Your task to perform on an android device: Open the calendar and show me this week's events Image 0: 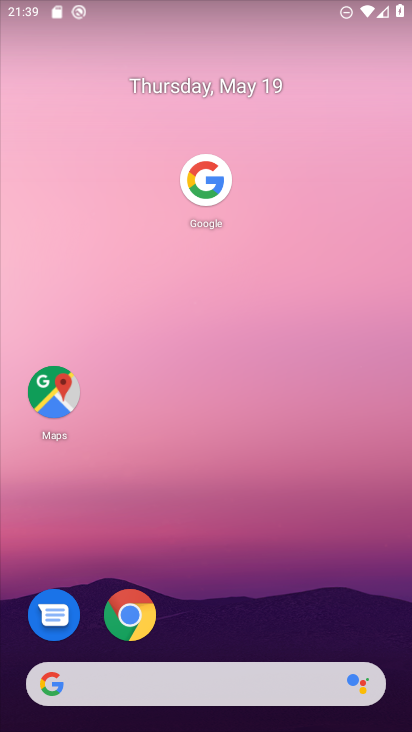
Step 0: drag from (246, 630) to (235, 137)
Your task to perform on an android device: Open the calendar and show me this week's events Image 1: 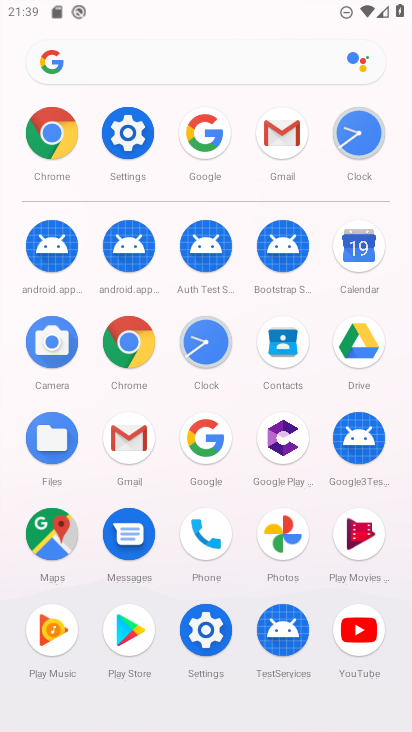
Step 1: click (352, 255)
Your task to perform on an android device: Open the calendar and show me this week's events Image 2: 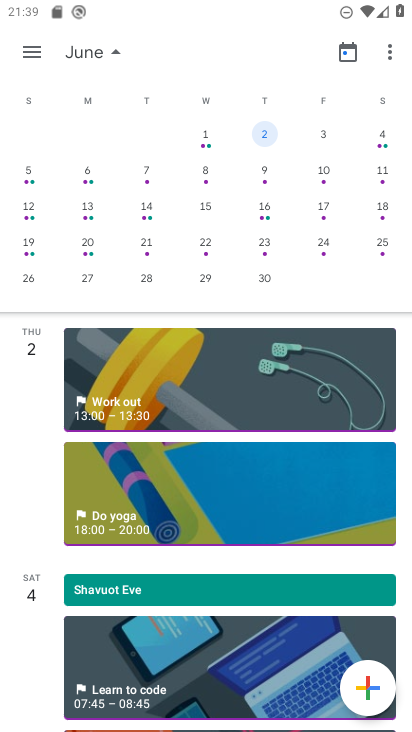
Step 2: drag from (63, 249) to (406, 242)
Your task to perform on an android device: Open the calendar and show me this week's events Image 3: 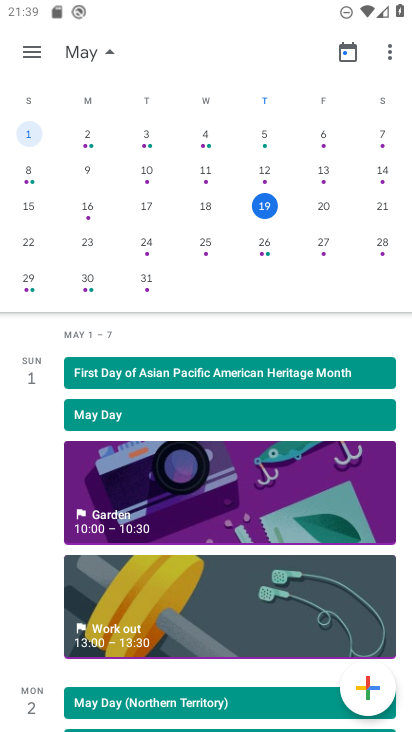
Step 3: click (37, 240)
Your task to perform on an android device: Open the calendar and show me this week's events Image 4: 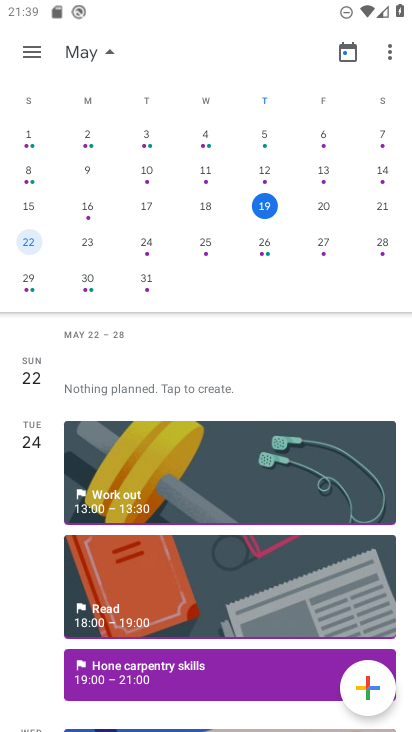
Step 4: task complete